Your task to perform on an android device: change the clock display to analog Image 0: 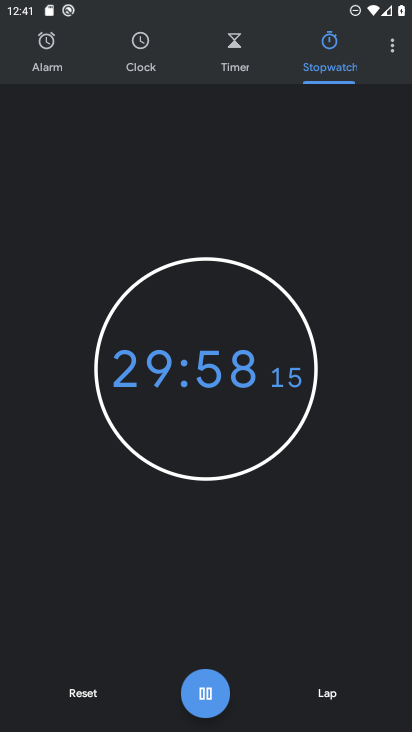
Step 0: click (396, 45)
Your task to perform on an android device: change the clock display to analog Image 1: 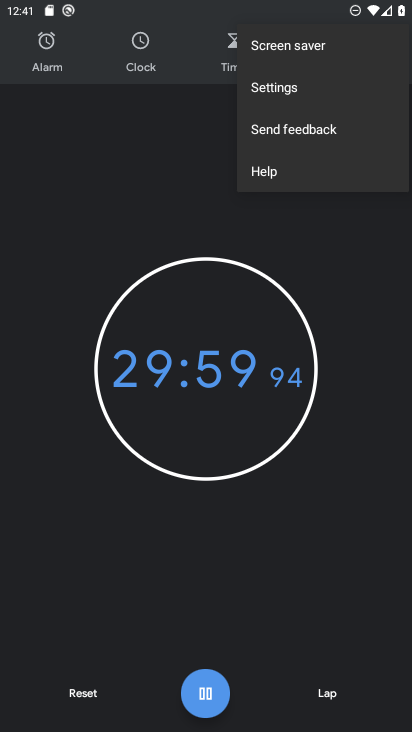
Step 1: click (274, 87)
Your task to perform on an android device: change the clock display to analog Image 2: 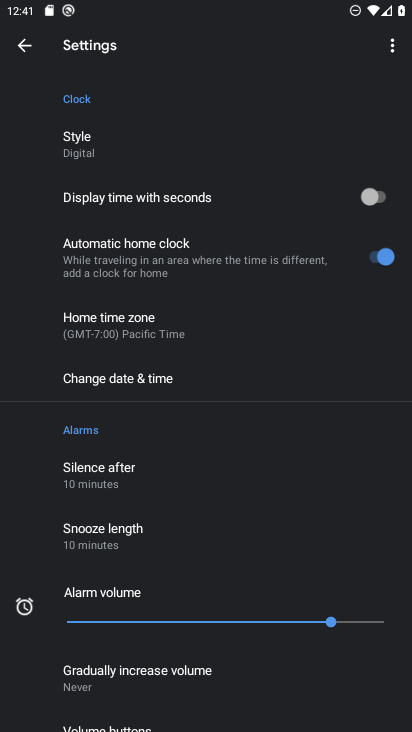
Step 2: click (90, 135)
Your task to perform on an android device: change the clock display to analog Image 3: 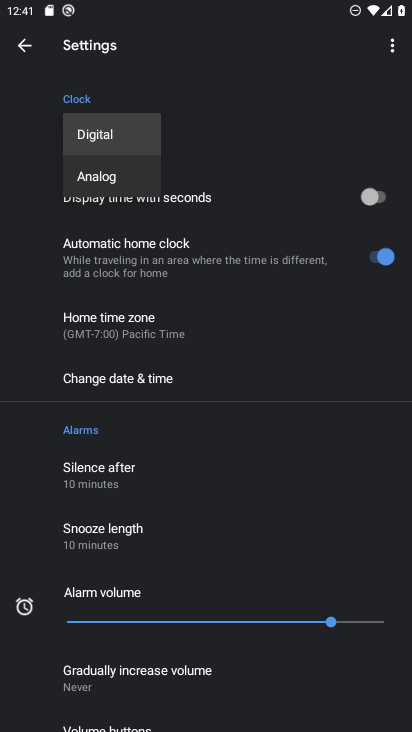
Step 3: click (96, 171)
Your task to perform on an android device: change the clock display to analog Image 4: 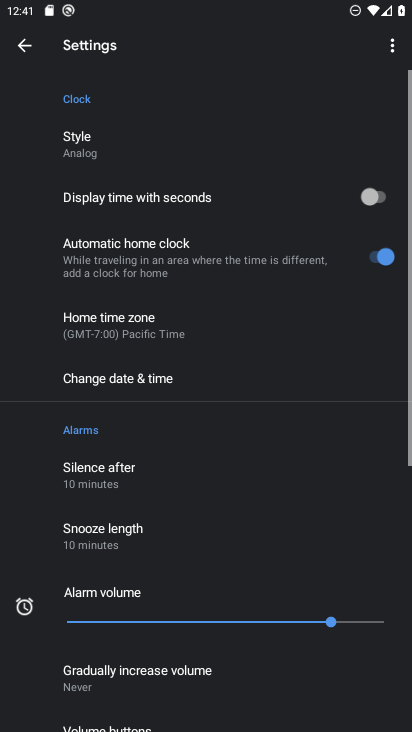
Step 4: task complete